Your task to perform on an android device: Search for vegetarian restaurants on Maps Image 0: 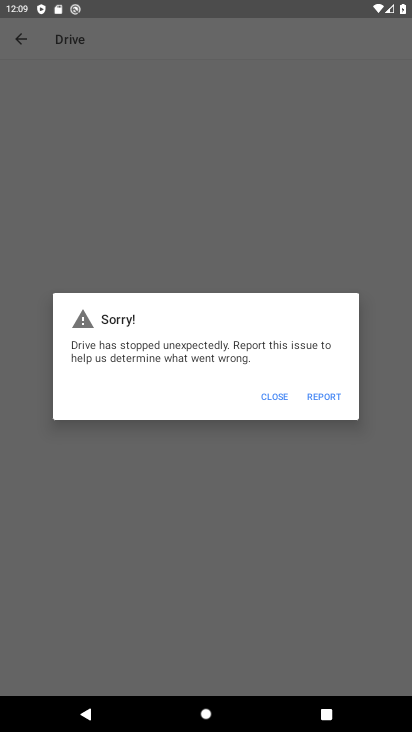
Step 0: press home button
Your task to perform on an android device: Search for vegetarian restaurants on Maps Image 1: 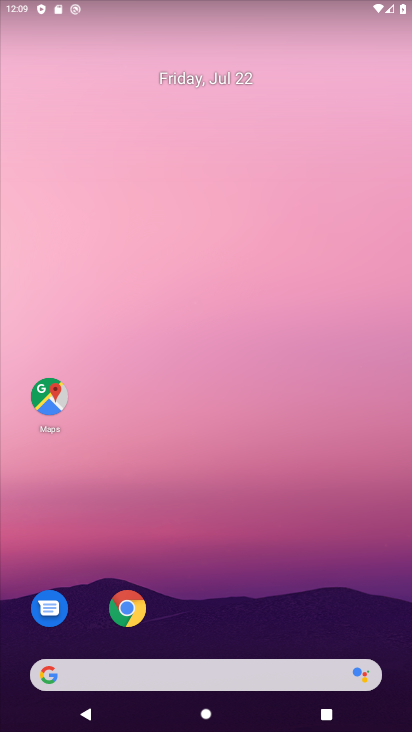
Step 1: click (52, 382)
Your task to perform on an android device: Search for vegetarian restaurants on Maps Image 2: 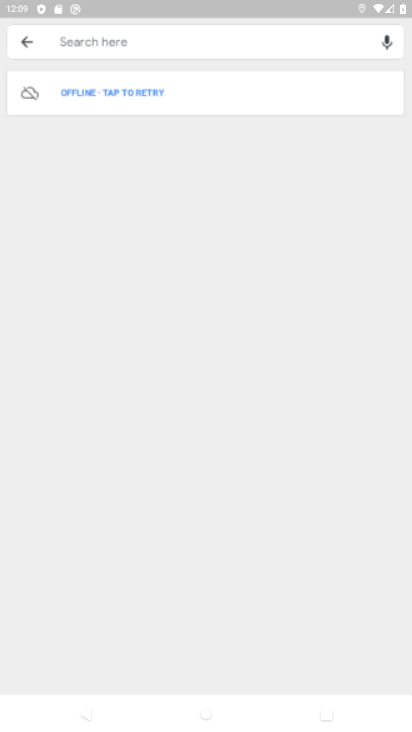
Step 2: click (41, 386)
Your task to perform on an android device: Search for vegetarian restaurants on Maps Image 3: 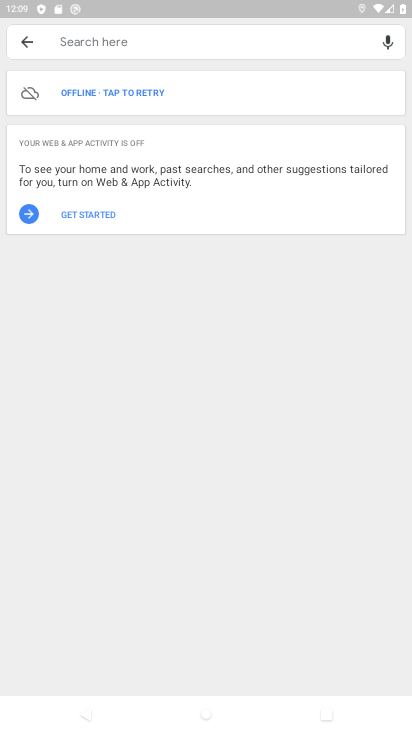
Step 3: click (28, 54)
Your task to perform on an android device: Search for vegetarian restaurants on Maps Image 4: 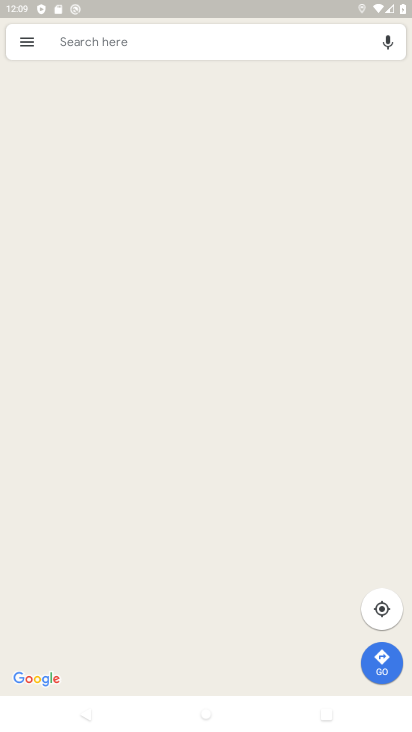
Step 4: click (123, 47)
Your task to perform on an android device: Search for vegetarian restaurants on Maps Image 5: 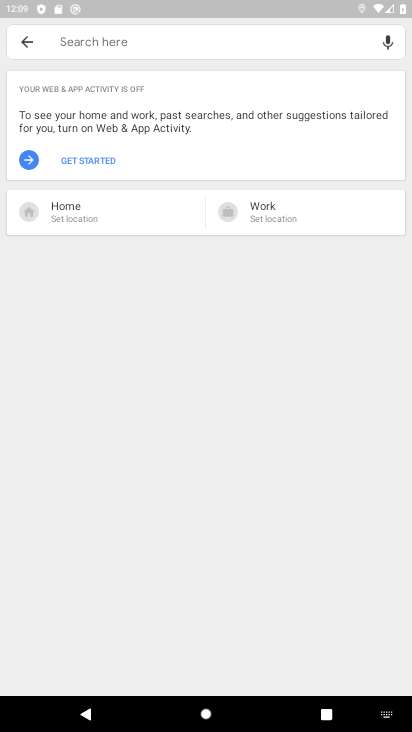
Step 5: type "vegetarian restaurant"
Your task to perform on an android device: Search for vegetarian restaurants on Maps Image 6: 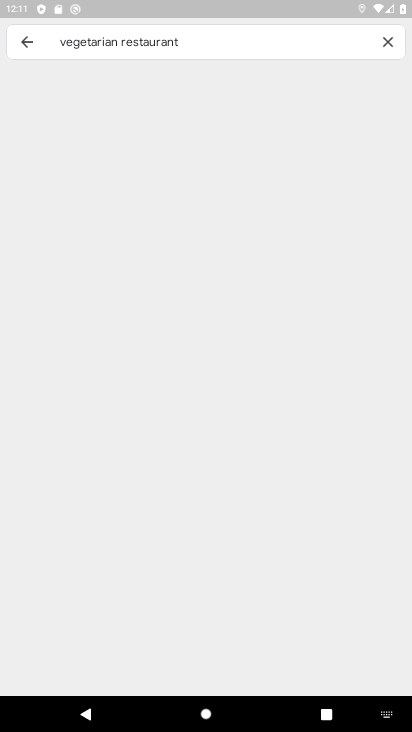
Step 6: task complete